Your task to perform on an android device: turn on the 24-hour format for clock Image 0: 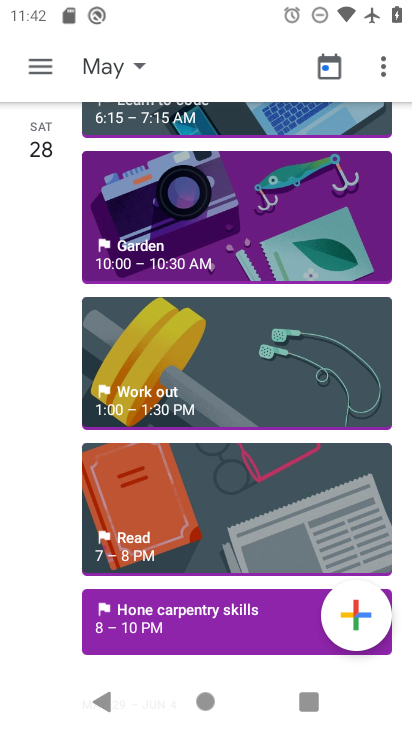
Step 0: press home button
Your task to perform on an android device: turn on the 24-hour format for clock Image 1: 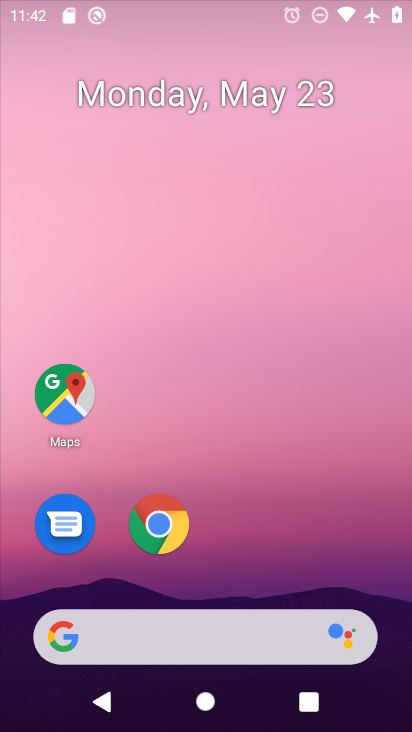
Step 1: drag from (222, 311) to (222, 148)
Your task to perform on an android device: turn on the 24-hour format for clock Image 2: 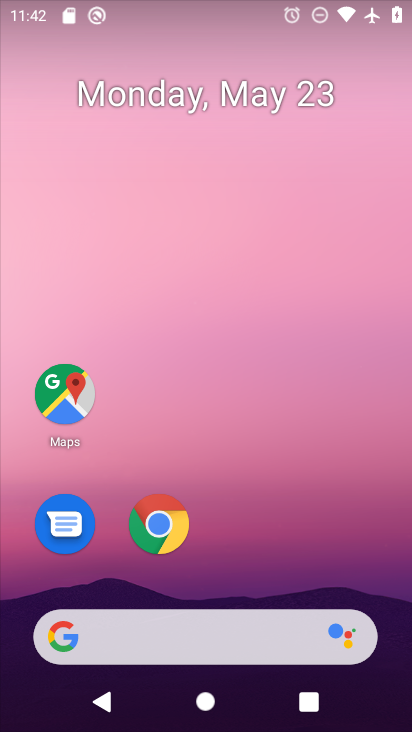
Step 2: drag from (250, 568) to (262, 101)
Your task to perform on an android device: turn on the 24-hour format for clock Image 3: 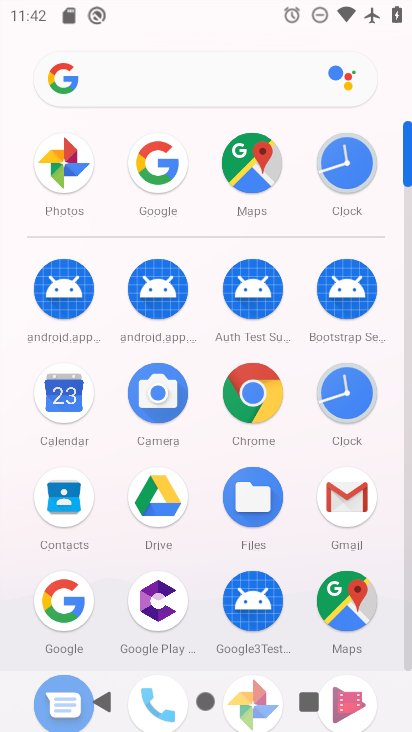
Step 3: click (343, 192)
Your task to perform on an android device: turn on the 24-hour format for clock Image 4: 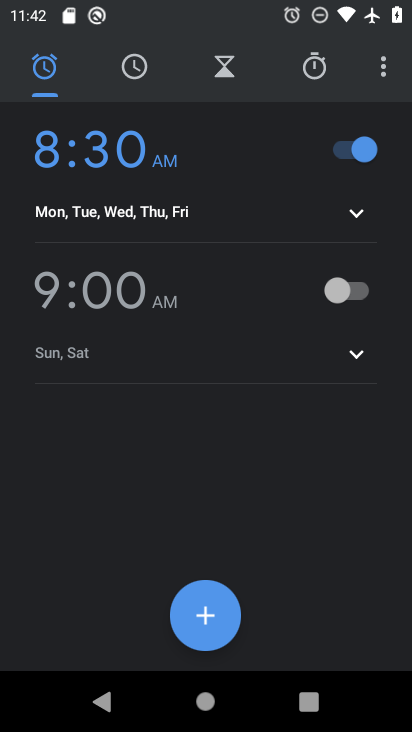
Step 4: click (391, 61)
Your task to perform on an android device: turn on the 24-hour format for clock Image 5: 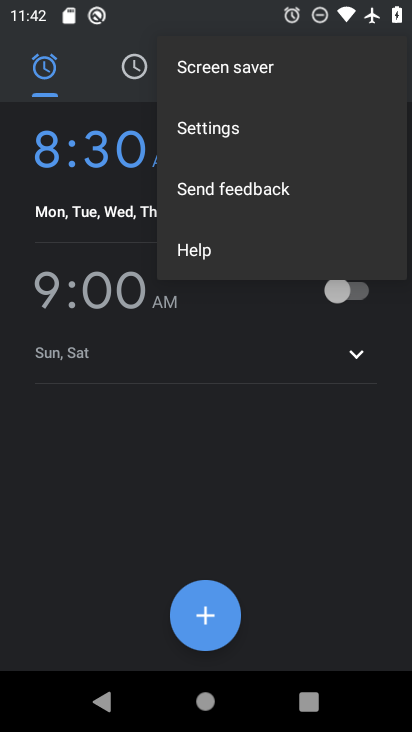
Step 5: click (245, 129)
Your task to perform on an android device: turn on the 24-hour format for clock Image 6: 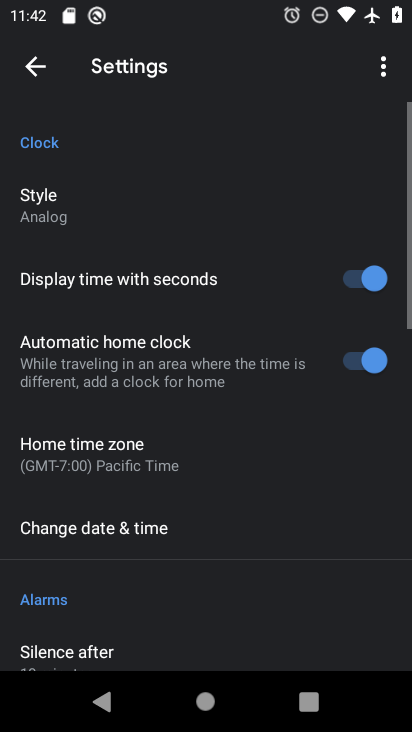
Step 6: click (174, 518)
Your task to perform on an android device: turn on the 24-hour format for clock Image 7: 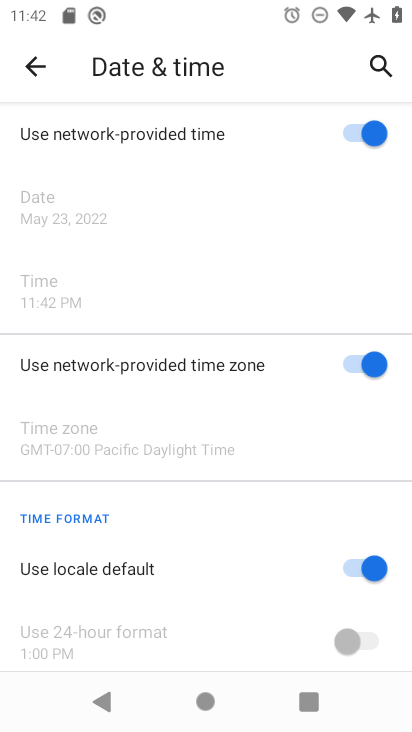
Step 7: click (361, 565)
Your task to perform on an android device: turn on the 24-hour format for clock Image 8: 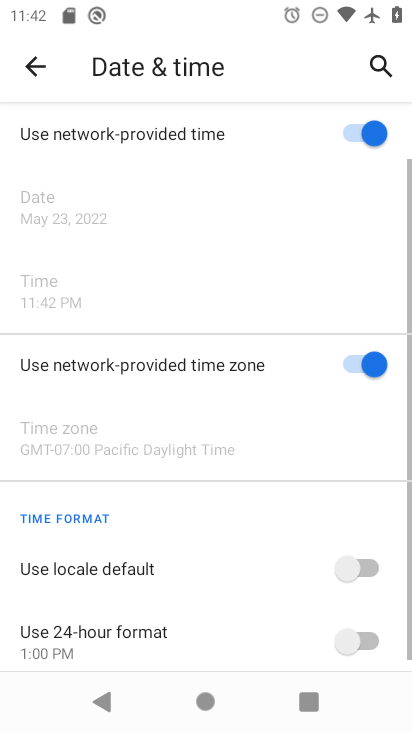
Step 8: click (374, 641)
Your task to perform on an android device: turn on the 24-hour format for clock Image 9: 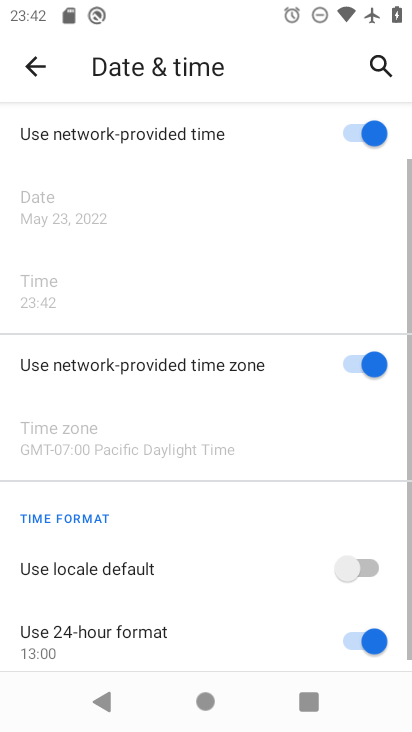
Step 9: task complete